Your task to perform on an android device: Open the calendar app, open the side menu, and click the "Day" option Image 0: 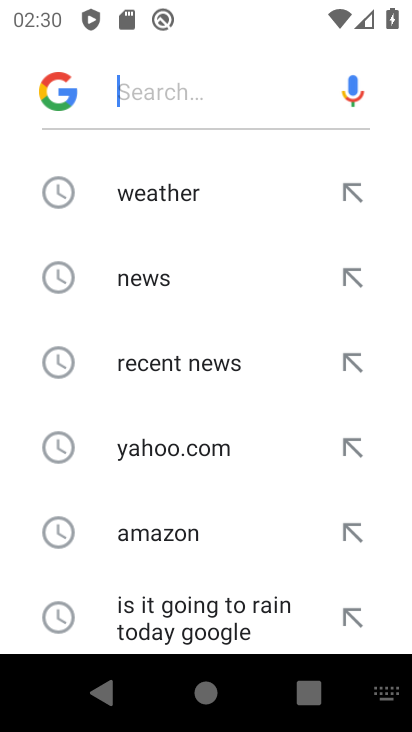
Step 0: press home button
Your task to perform on an android device: Open the calendar app, open the side menu, and click the "Day" option Image 1: 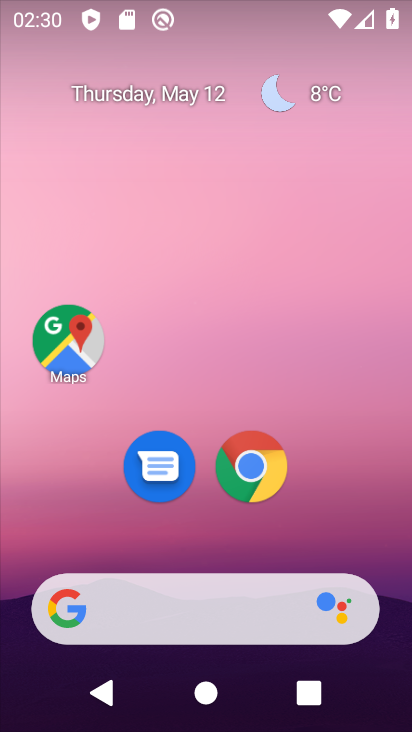
Step 1: drag from (347, 548) to (339, 25)
Your task to perform on an android device: Open the calendar app, open the side menu, and click the "Day" option Image 2: 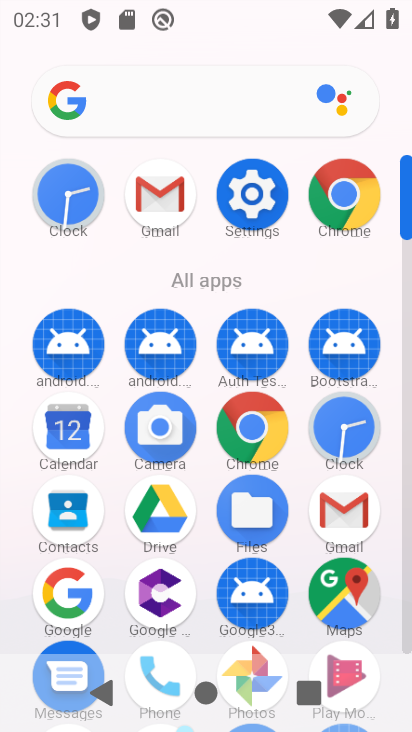
Step 2: click (71, 421)
Your task to perform on an android device: Open the calendar app, open the side menu, and click the "Day" option Image 3: 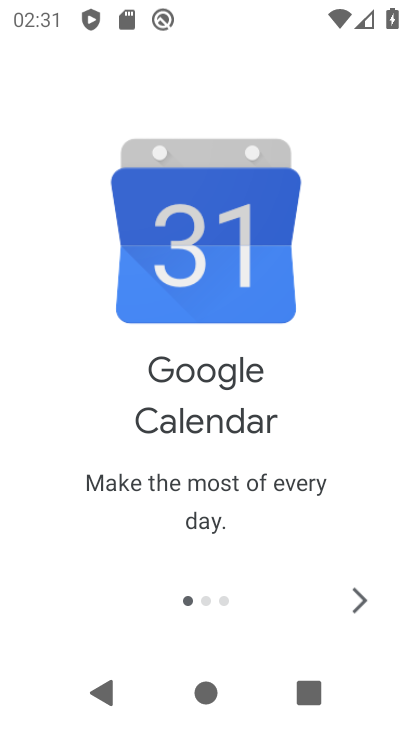
Step 3: click (364, 594)
Your task to perform on an android device: Open the calendar app, open the side menu, and click the "Day" option Image 4: 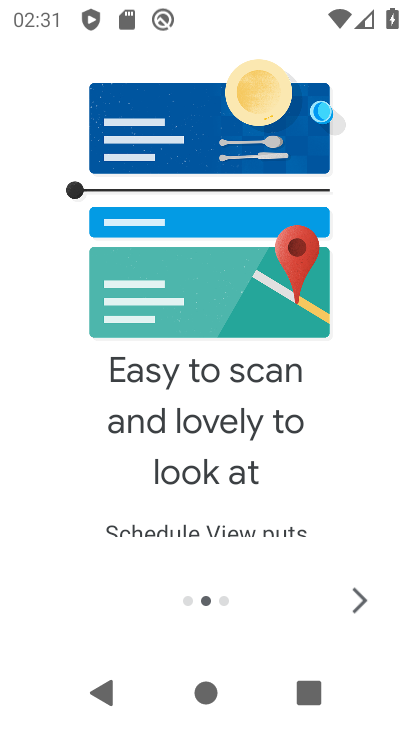
Step 4: click (350, 594)
Your task to perform on an android device: Open the calendar app, open the side menu, and click the "Day" option Image 5: 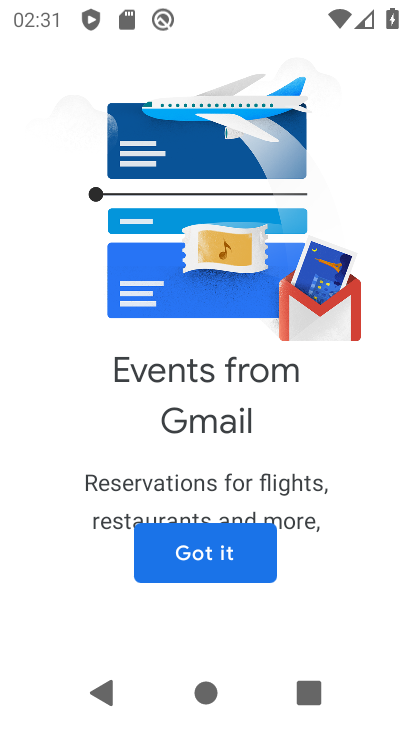
Step 5: click (247, 559)
Your task to perform on an android device: Open the calendar app, open the side menu, and click the "Day" option Image 6: 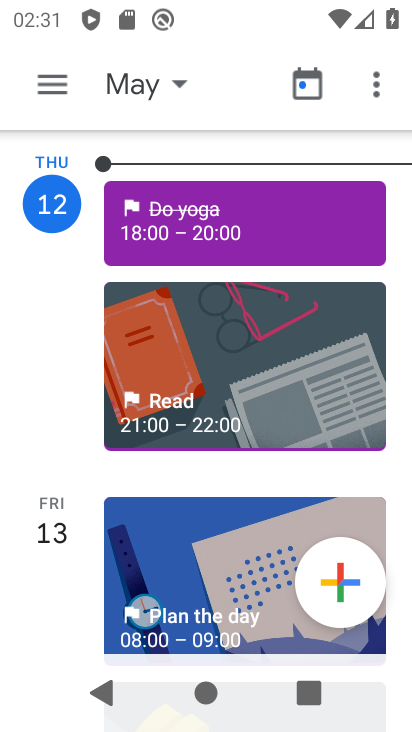
Step 6: click (34, 77)
Your task to perform on an android device: Open the calendar app, open the side menu, and click the "Day" option Image 7: 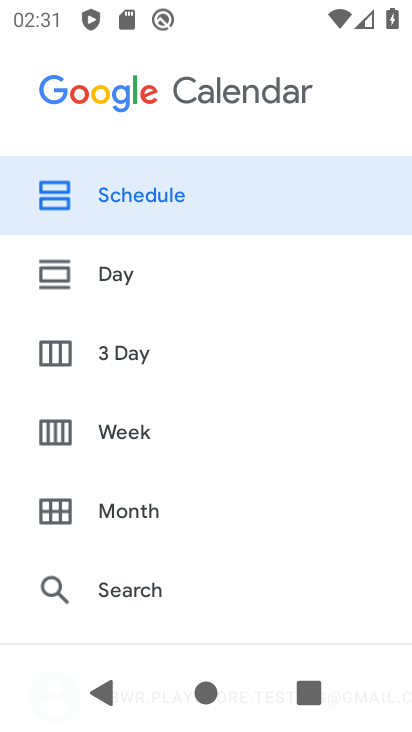
Step 7: click (98, 271)
Your task to perform on an android device: Open the calendar app, open the side menu, and click the "Day" option Image 8: 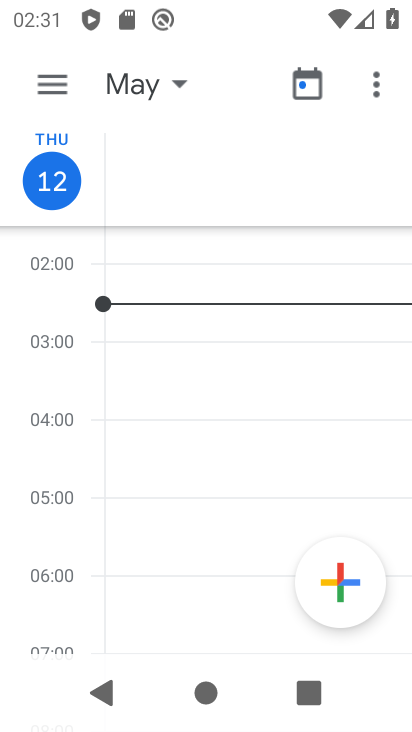
Step 8: task complete